Your task to perform on an android device: turn on showing notifications on the lock screen Image 0: 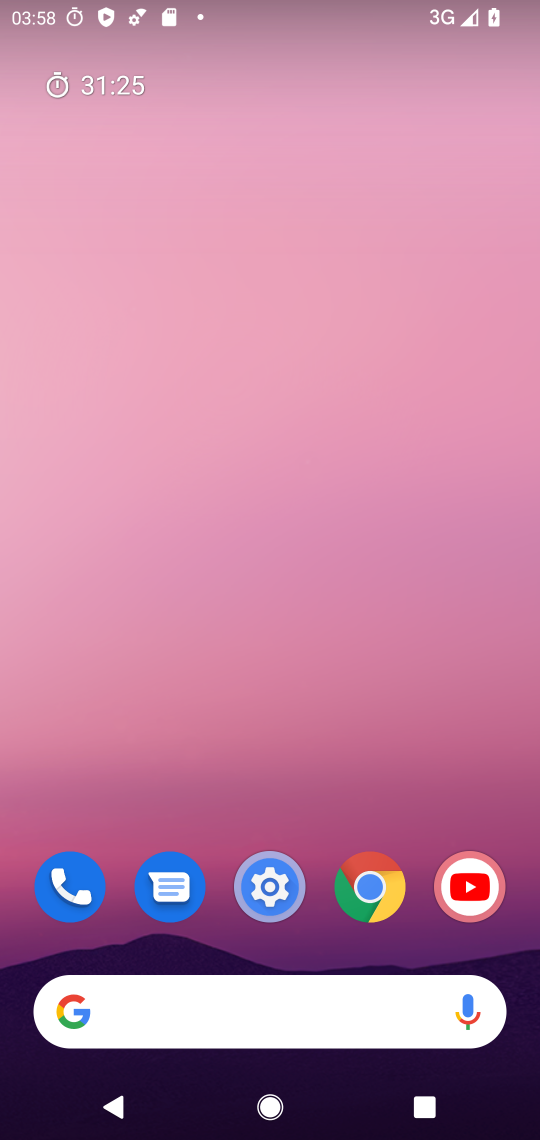
Step 0: press home button
Your task to perform on an android device: turn on showing notifications on the lock screen Image 1: 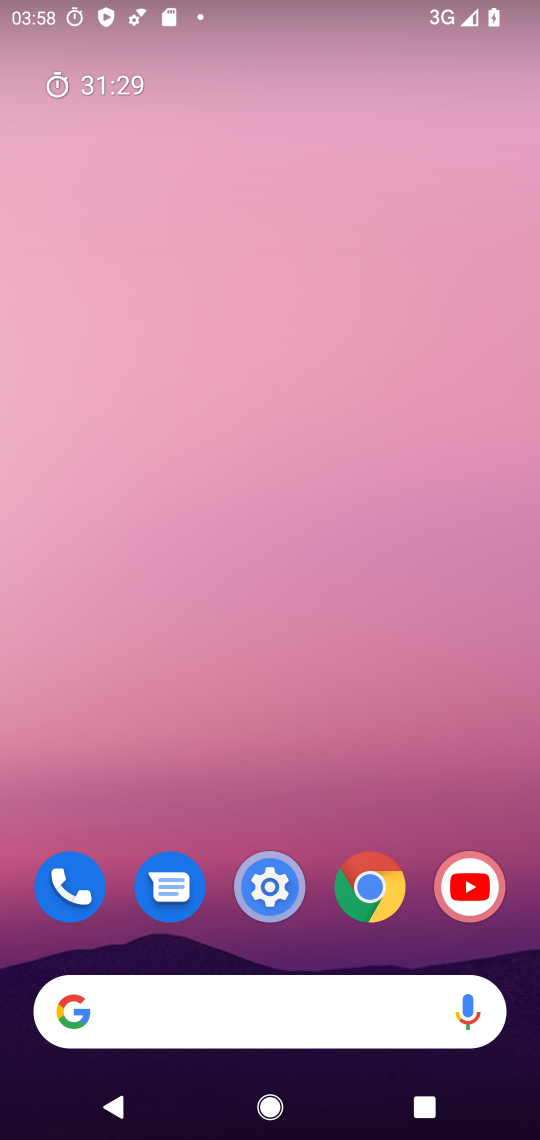
Step 1: drag from (407, 769) to (420, 259)
Your task to perform on an android device: turn on showing notifications on the lock screen Image 2: 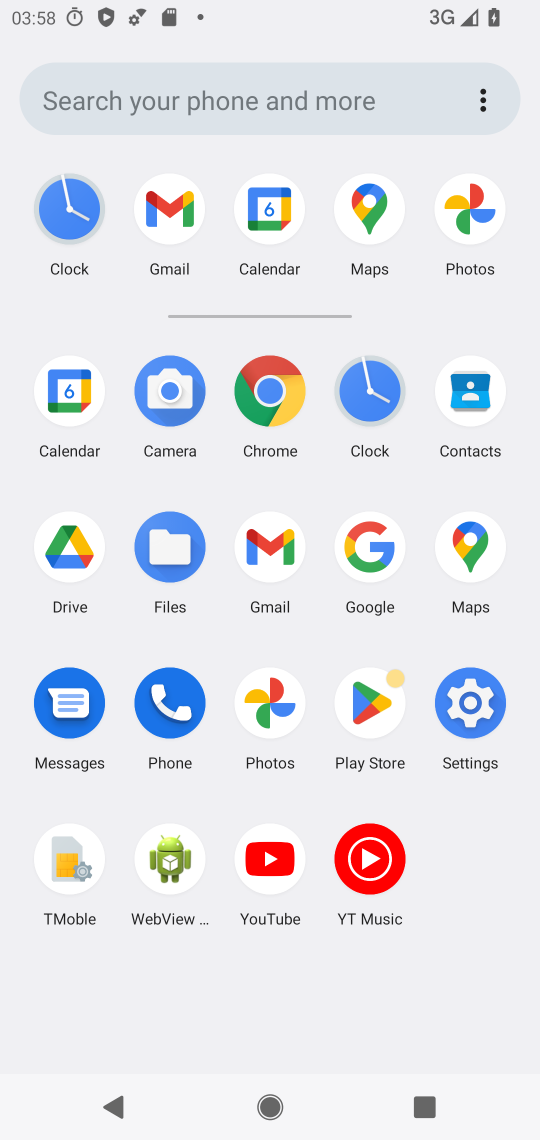
Step 2: click (463, 707)
Your task to perform on an android device: turn on showing notifications on the lock screen Image 3: 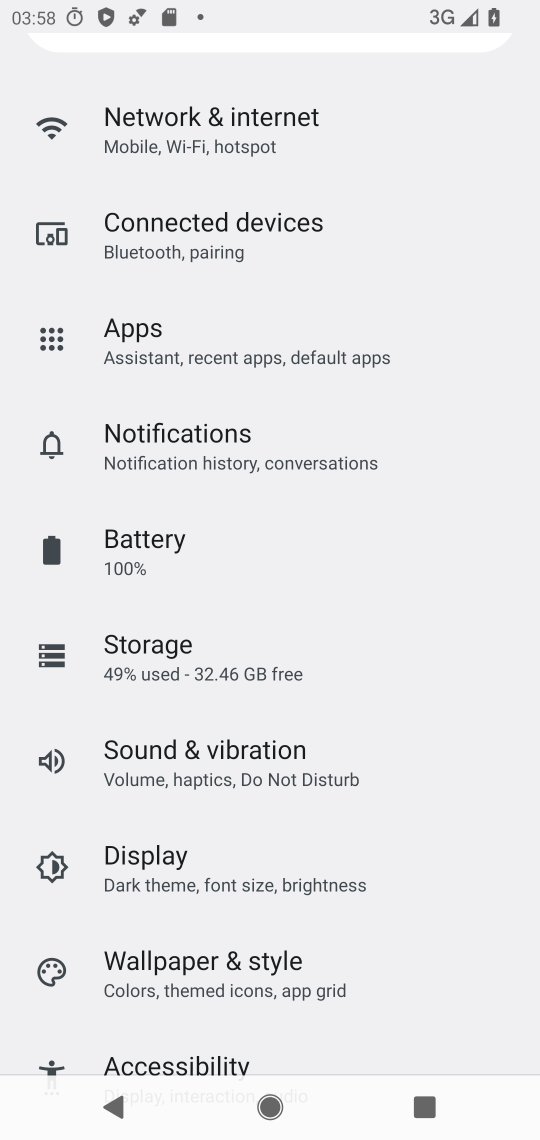
Step 3: drag from (466, 828) to (461, 536)
Your task to perform on an android device: turn on showing notifications on the lock screen Image 4: 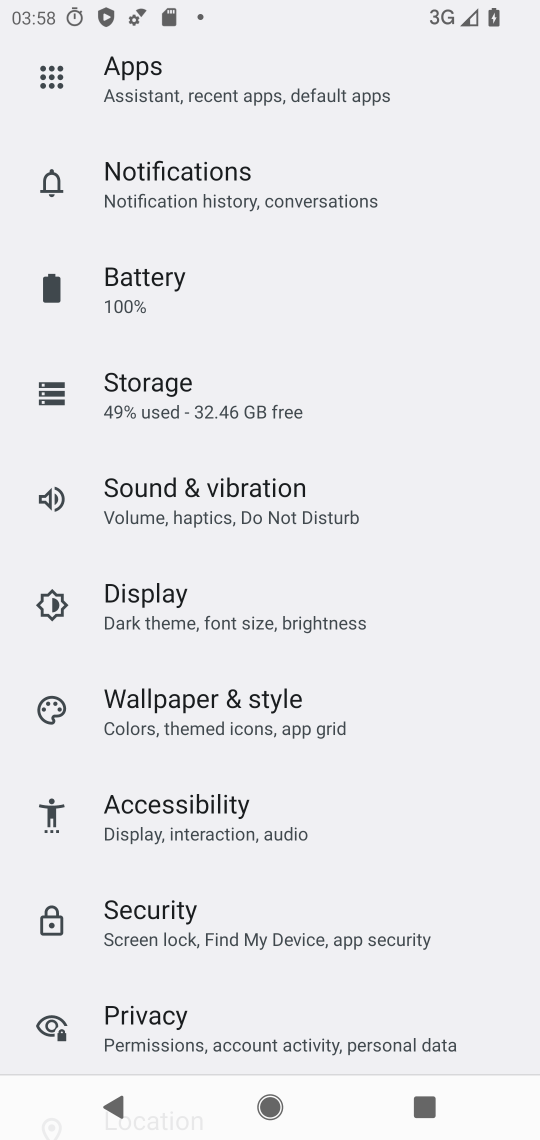
Step 4: drag from (452, 694) to (459, 529)
Your task to perform on an android device: turn on showing notifications on the lock screen Image 5: 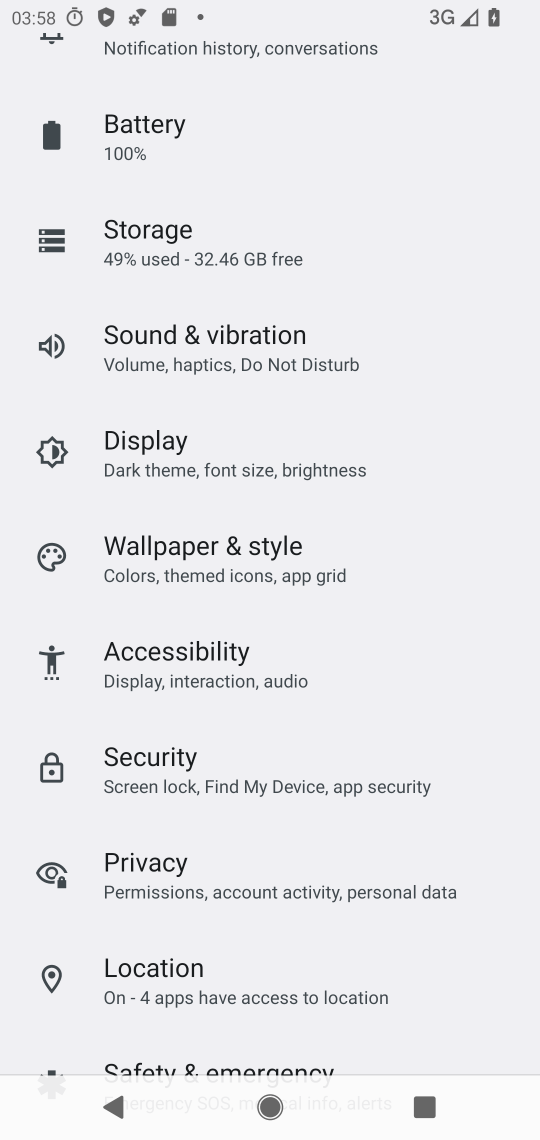
Step 5: drag from (452, 777) to (465, 588)
Your task to perform on an android device: turn on showing notifications on the lock screen Image 6: 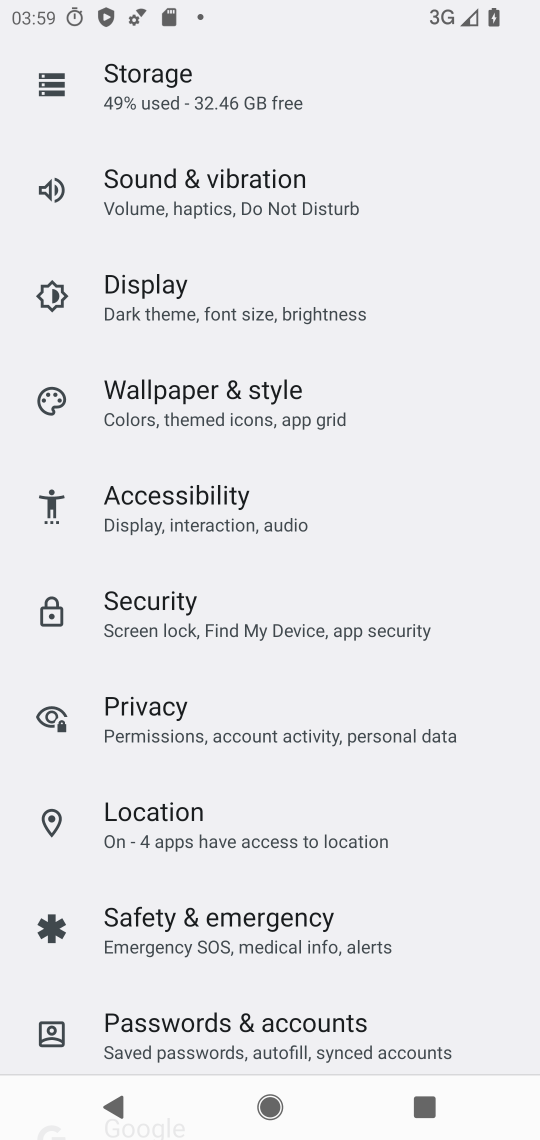
Step 6: drag from (449, 858) to (472, 679)
Your task to perform on an android device: turn on showing notifications on the lock screen Image 7: 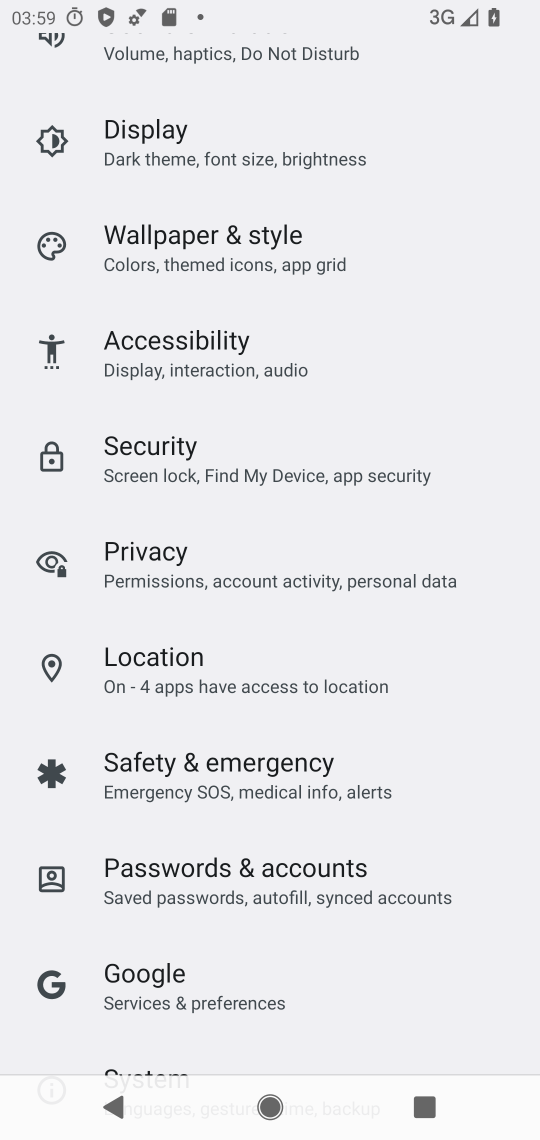
Step 7: drag from (440, 887) to (468, 667)
Your task to perform on an android device: turn on showing notifications on the lock screen Image 8: 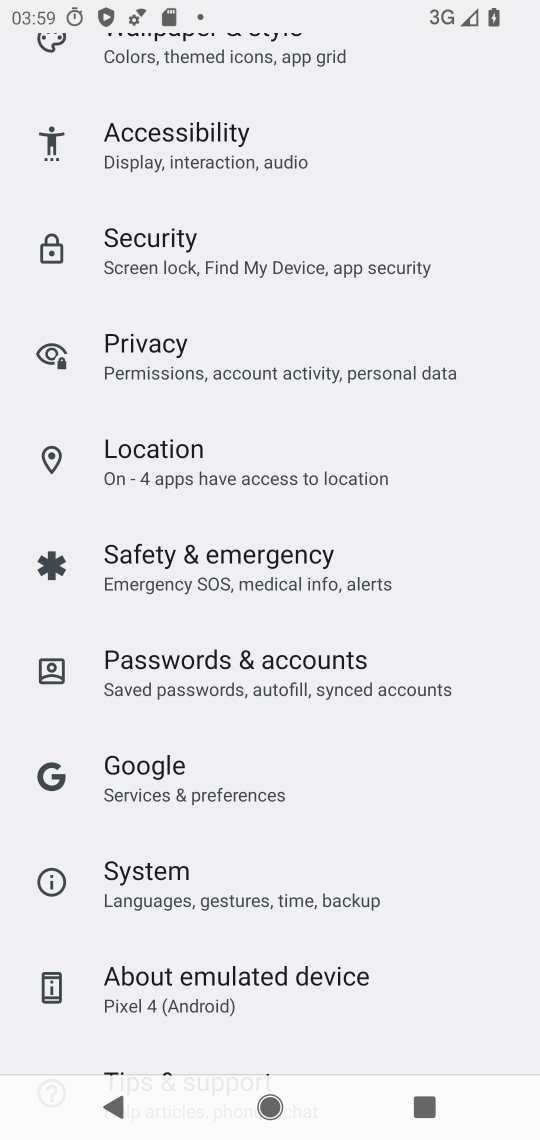
Step 8: drag from (453, 846) to (470, 608)
Your task to perform on an android device: turn on showing notifications on the lock screen Image 9: 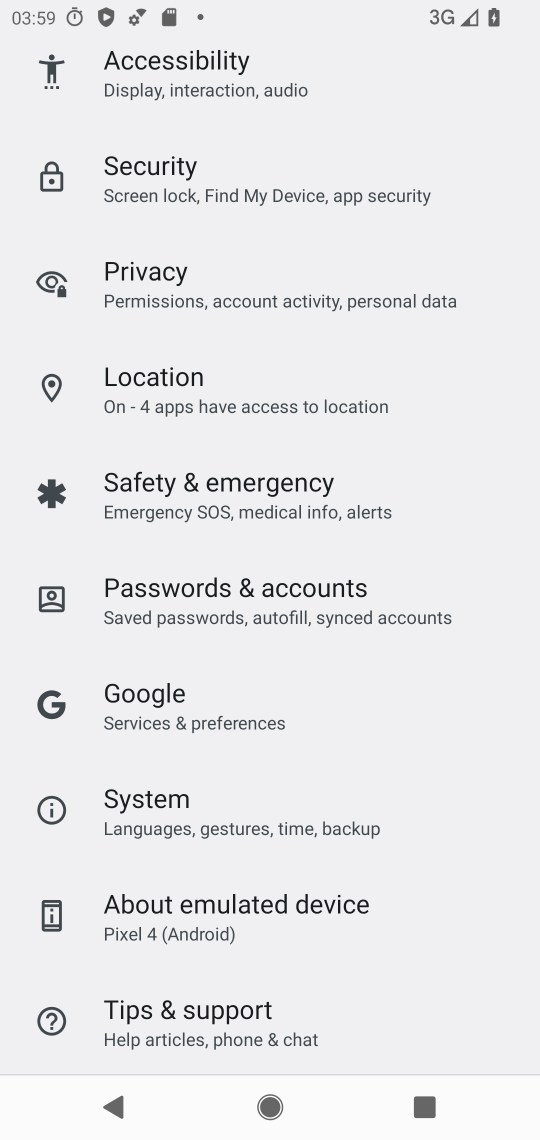
Step 9: drag from (469, 725) to (478, 544)
Your task to perform on an android device: turn on showing notifications on the lock screen Image 10: 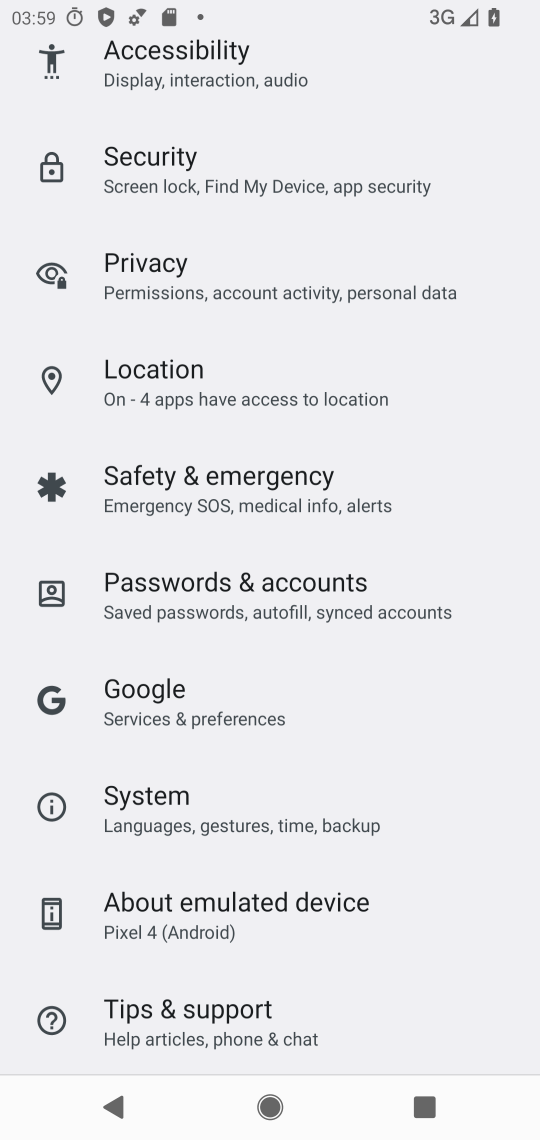
Step 10: drag from (475, 422) to (488, 626)
Your task to perform on an android device: turn on showing notifications on the lock screen Image 11: 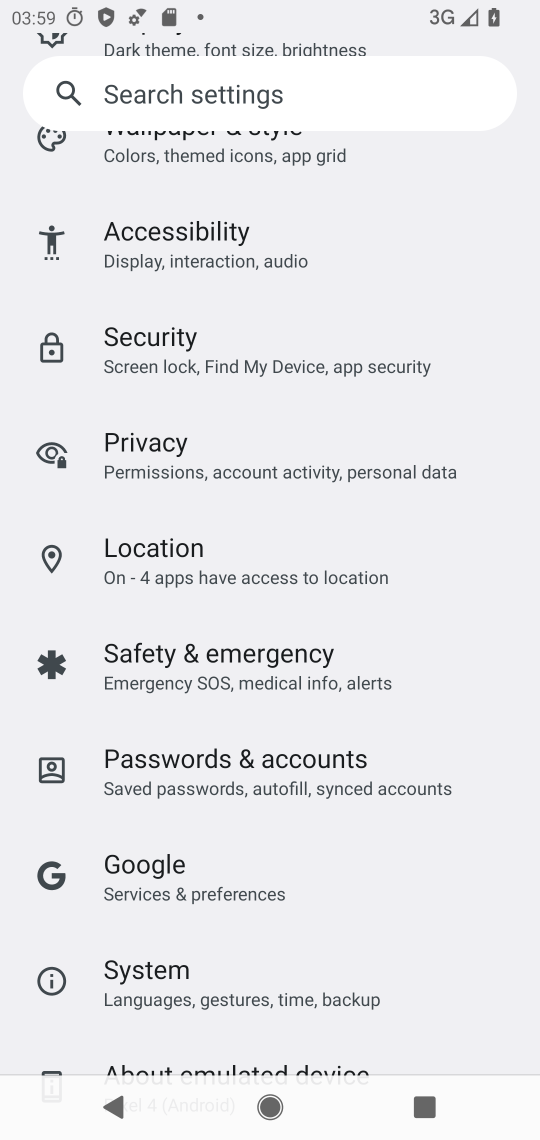
Step 11: drag from (476, 357) to (477, 596)
Your task to perform on an android device: turn on showing notifications on the lock screen Image 12: 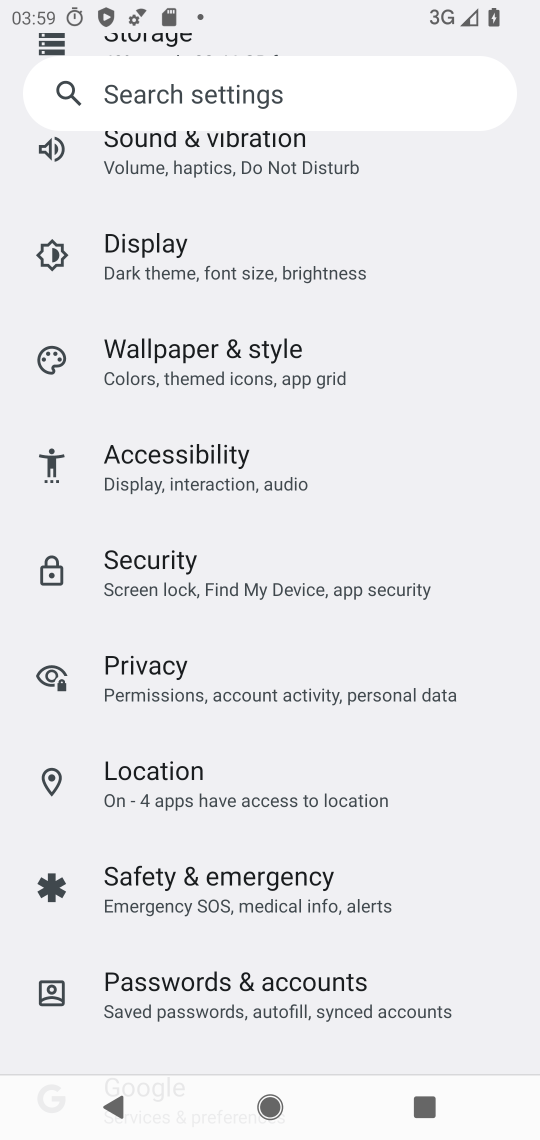
Step 12: drag from (524, 281) to (505, 630)
Your task to perform on an android device: turn on showing notifications on the lock screen Image 13: 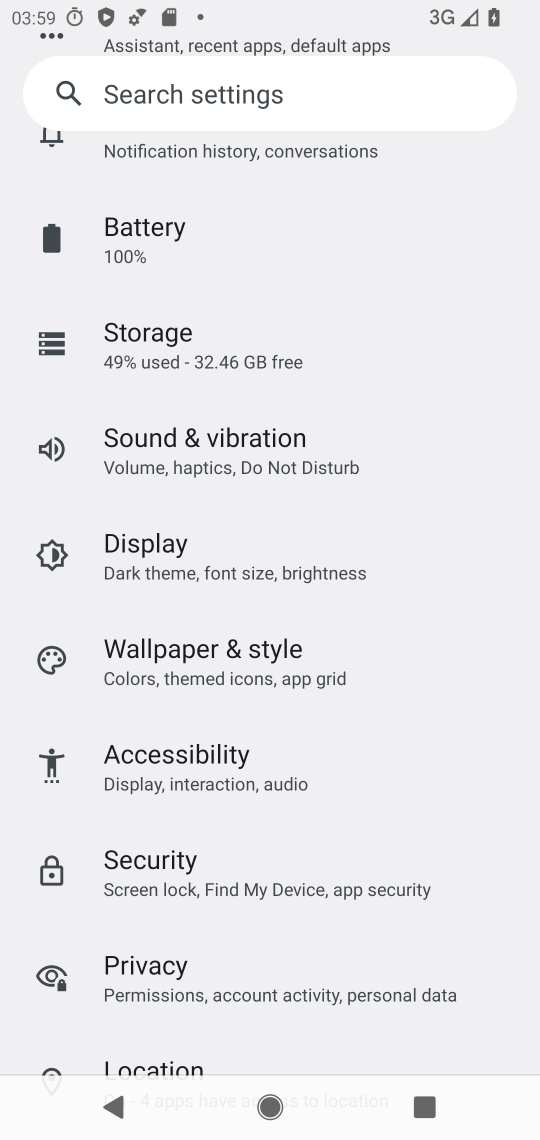
Step 13: drag from (445, 317) to (453, 616)
Your task to perform on an android device: turn on showing notifications on the lock screen Image 14: 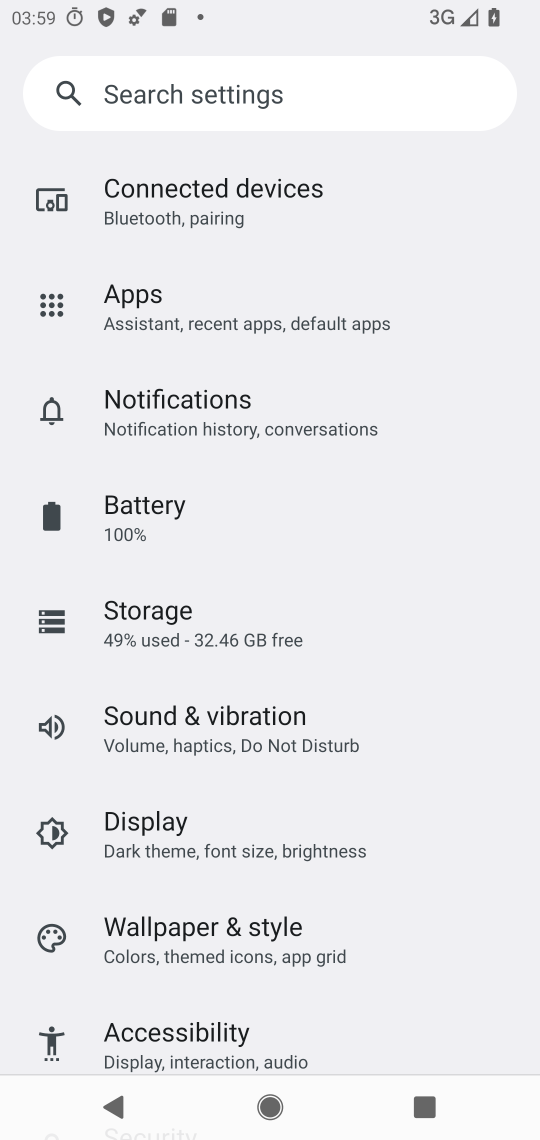
Step 14: click (368, 399)
Your task to perform on an android device: turn on showing notifications on the lock screen Image 15: 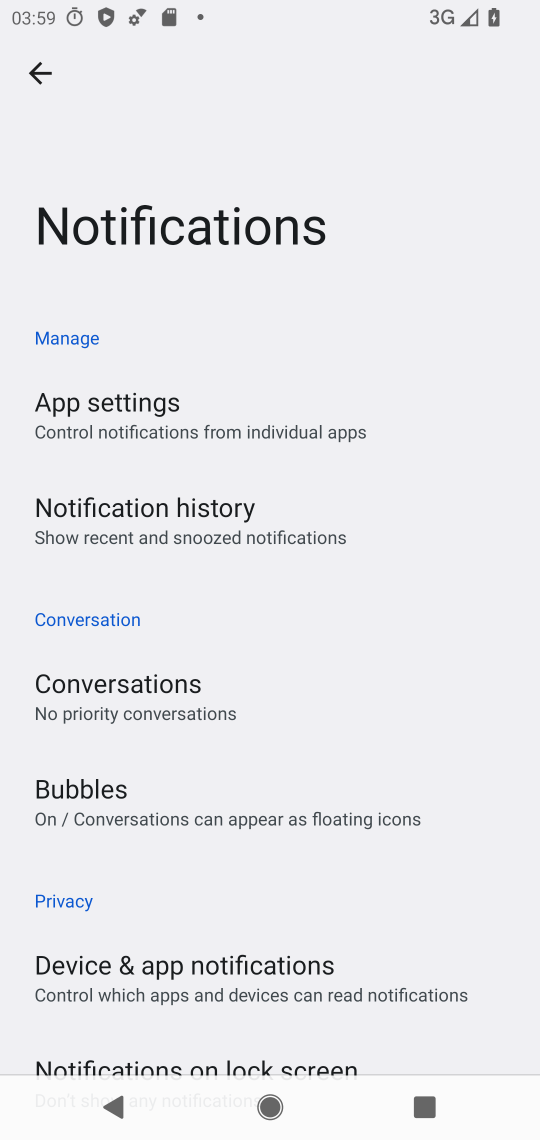
Step 15: drag from (418, 742) to (450, 546)
Your task to perform on an android device: turn on showing notifications on the lock screen Image 16: 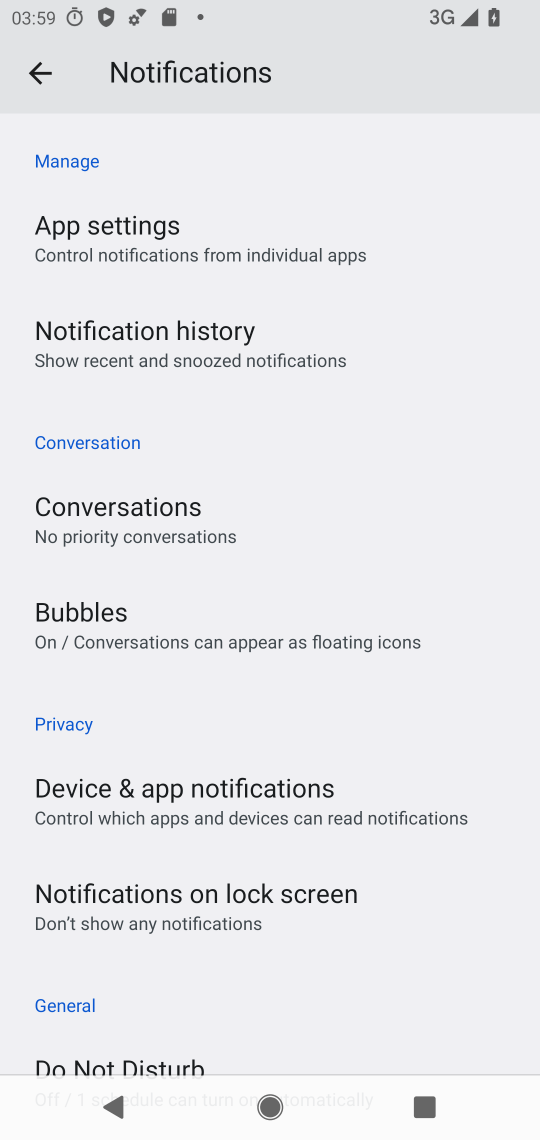
Step 16: drag from (417, 758) to (452, 463)
Your task to perform on an android device: turn on showing notifications on the lock screen Image 17: 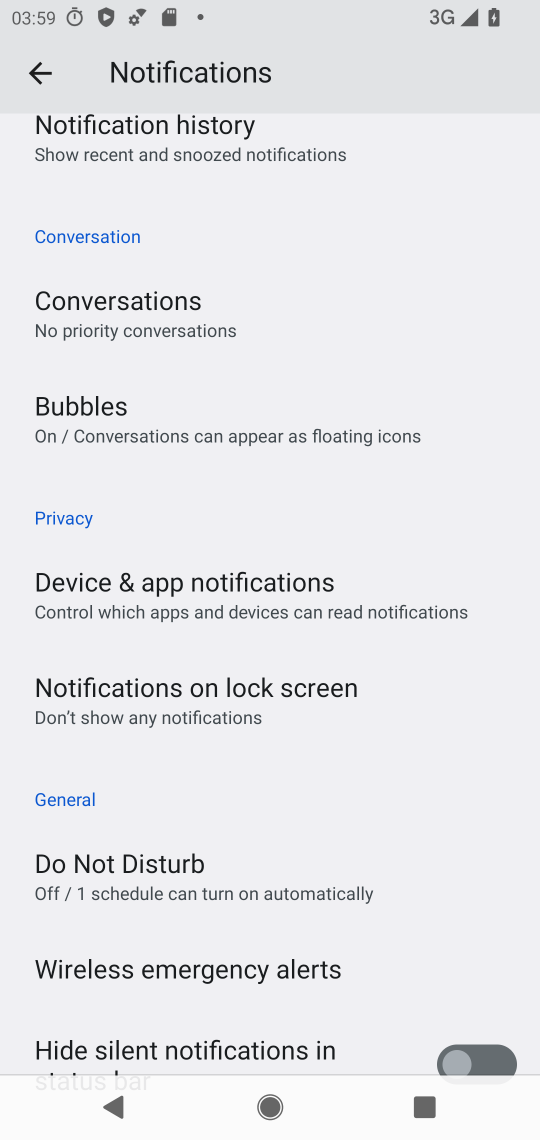
Step 17: drag from (440, 759) to (466, 509)
Your task to perform on an android device: turn on showing notifications on the lock screen Image 18: 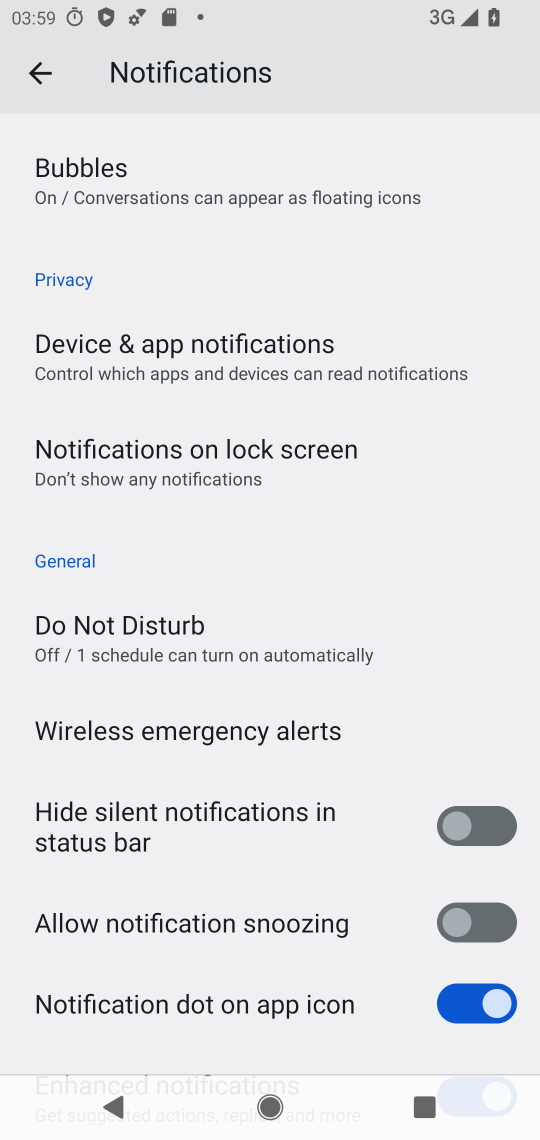
Step 18: click (335, 480)
Your task to perform on an android device: turn on showing notifications on the lock screen Image 19: 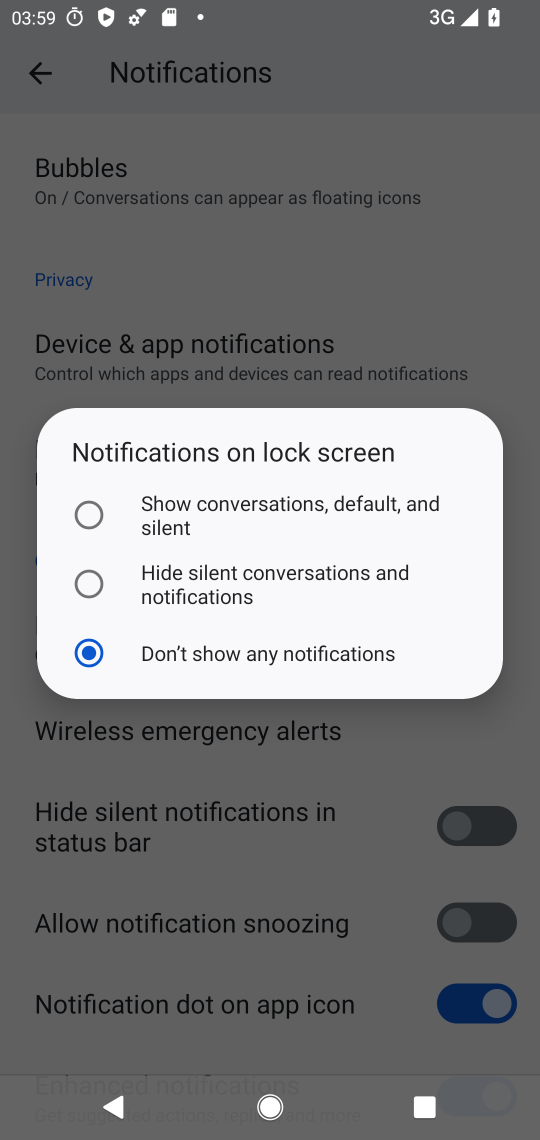
Step 19: click (296, 511)
Your task to perform on an android device: turn on showing notifications on the lock screen Image 20: 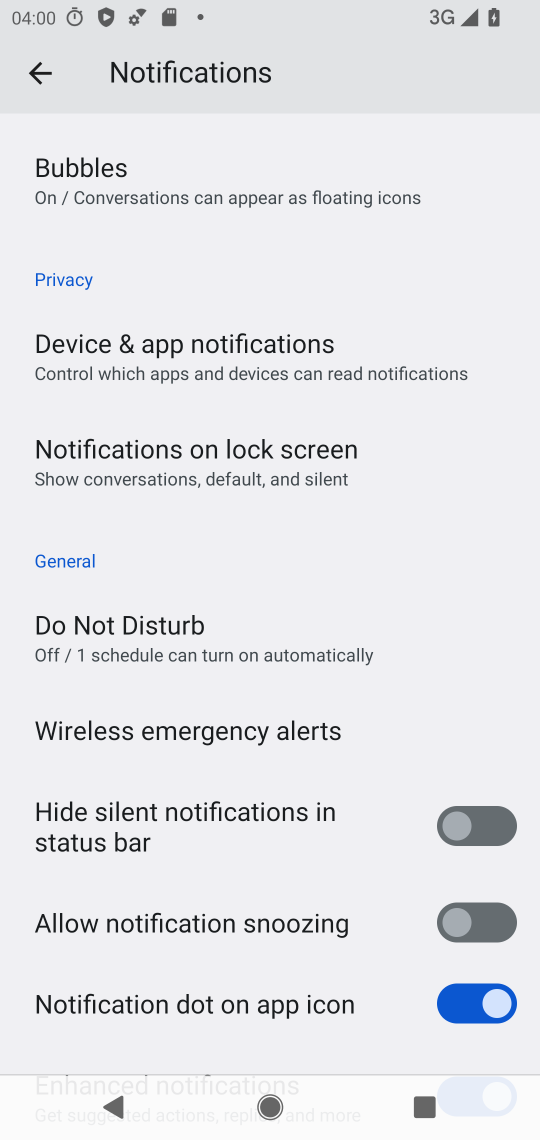
Step 20: task complete